Your task to perform on an android device: Is it going to rain tomorrow? Image 0: 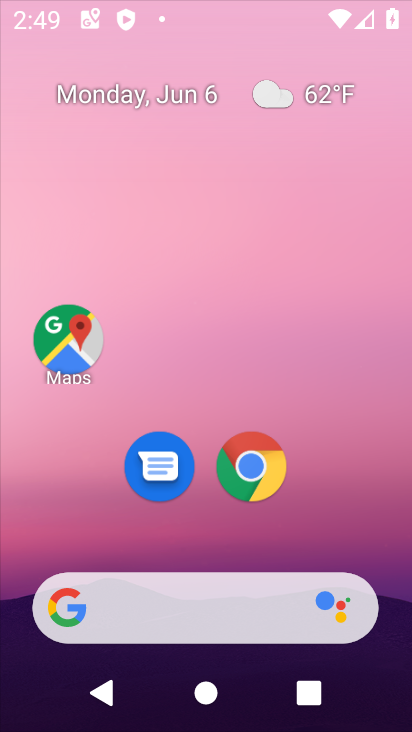
Step 0: drag from (282, 684) to (225, 88)
Your task to perform on an android device: Is it going to rain tomorrow? Image 1: 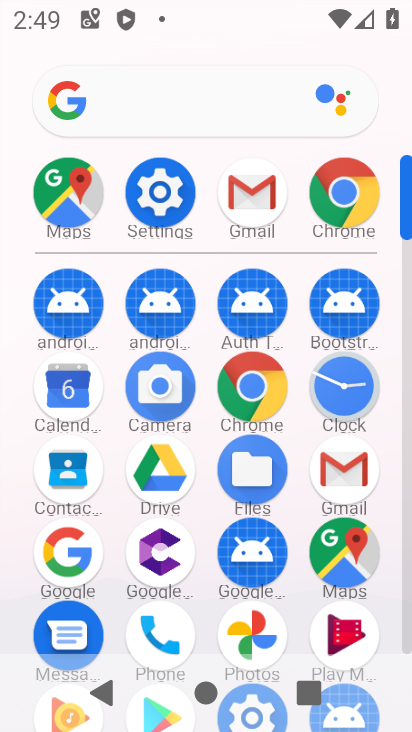
Step 1: press back button
Your task to perform on an android device: Is it going to rain tomorrow? Image 2: 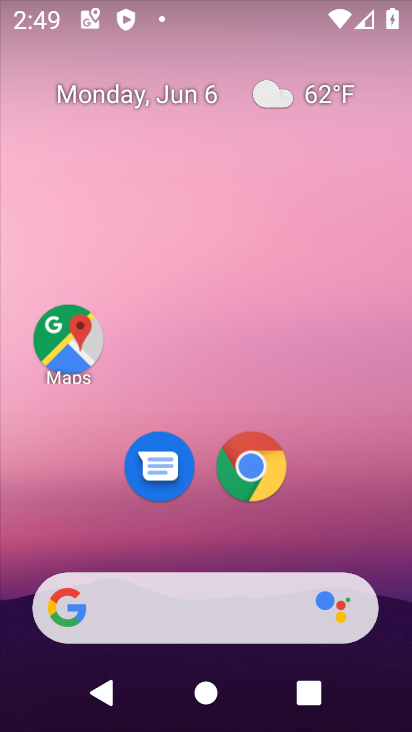
Step 2: drag from (1, 200) to (362, 413)
Your task to perform on an android device: Is it going to rain tomorrow? Image 3: 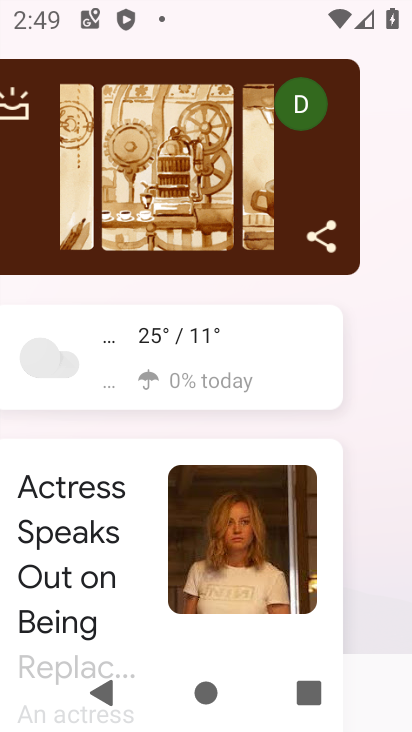
Step 3: drag from (6, 300) to (400, 415)
Your task to perform on an android device: Is it going to rain tomorrow? Image 4: 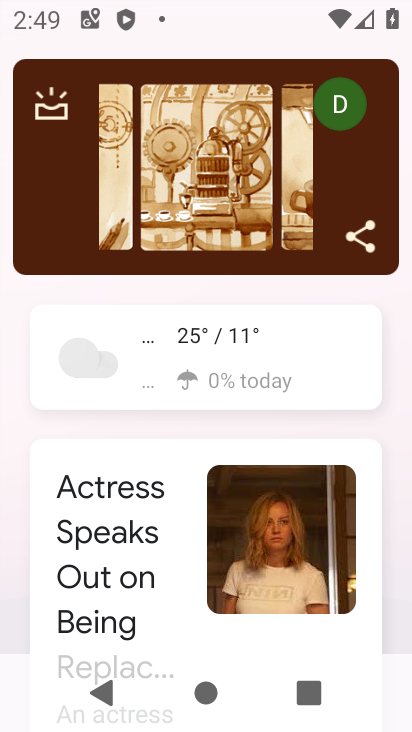
Step 4: click (142, 354)
Your task to perform on an android device: Is it going to rain tomorrow? Image 5: 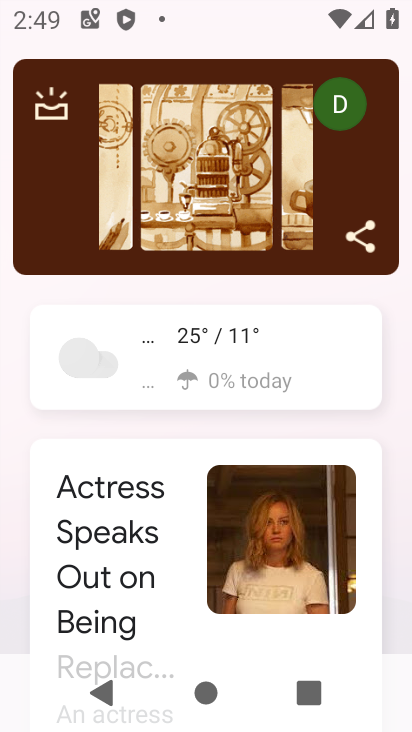
Step 5: click (141, 359)
Your task to perform on an android device: Is it going to rain tomorrow? Image 6: 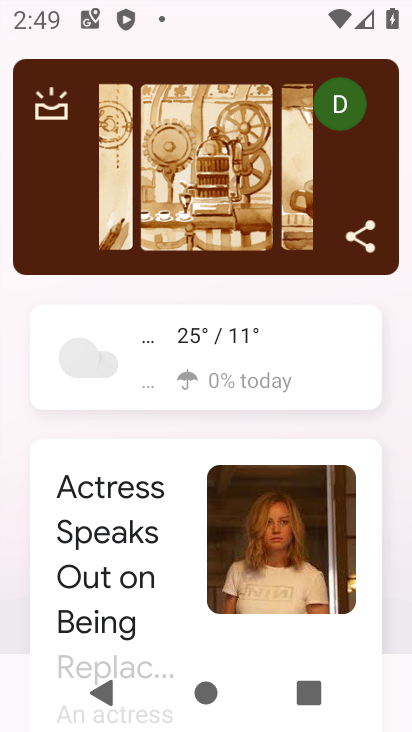
Step 6: click (148, 350)
Your task to perform on an android device: Is it going to rain tomorrow? Image 7: 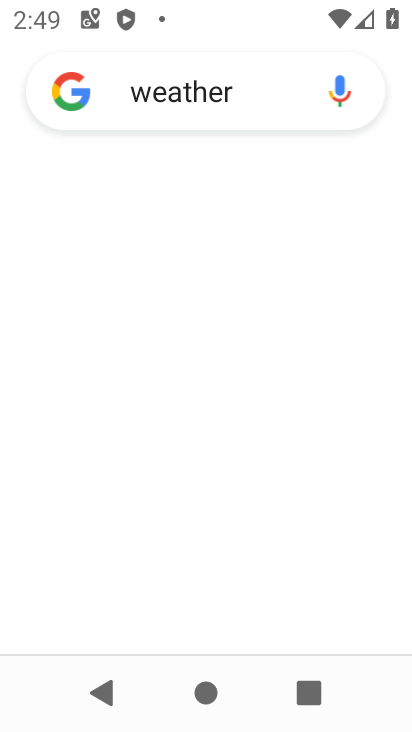
Step 7: click (148, 350)
Your task to perform on an android device: Is it going to rain tomorrow? Image 8: 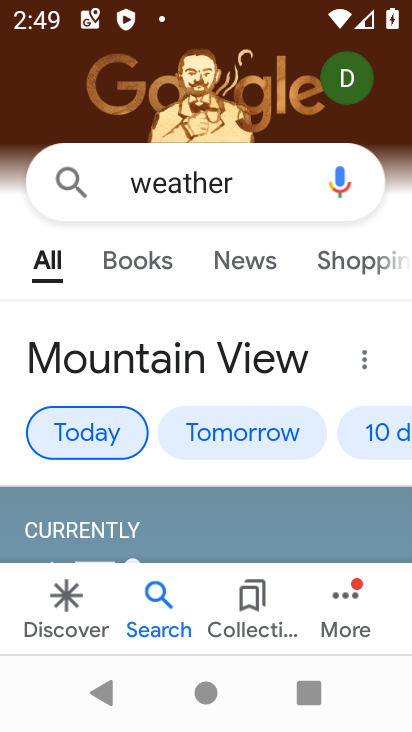
Step 8: click (263, 459)
Your task to perform on an android device: Is it going to rain tomorrow? Image 9: 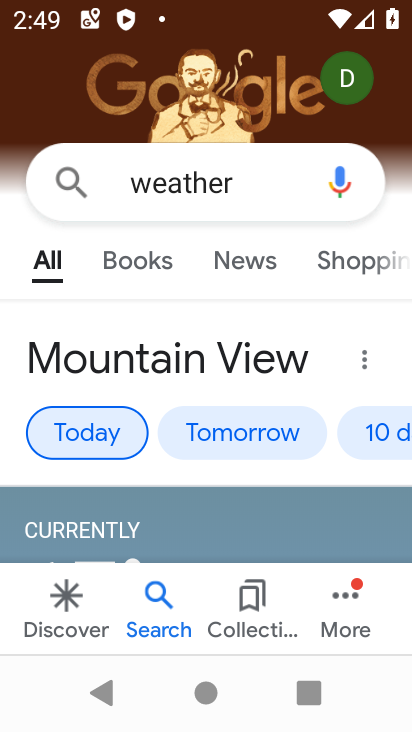
Step 9: click (257, 418)
Your task to perform on an android device: Is it going to rain tomorrow? Image 10: 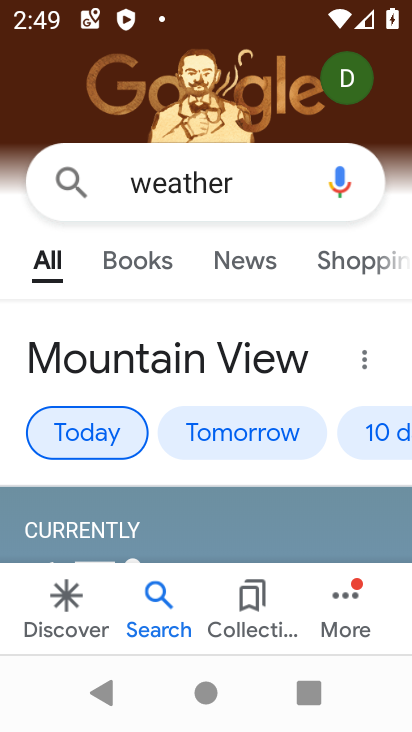
Step 10: click (259, 421)
Your task to perform on an android device: Is it going to rain tomorrow? Image 11: 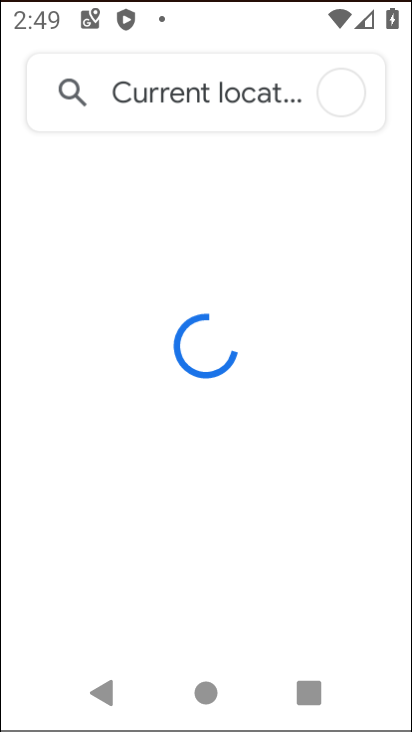
Step 11: click (257, 434)
Your task to perform on an android device: Is it going to rain tomorrow? Image 12: 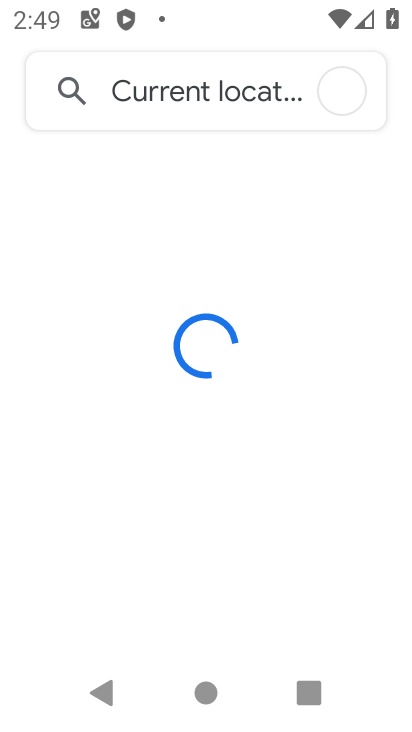
Step 12: click (254, 427)
Your task to perform on an android device: Is it going to rain tomorrow? Image 13: 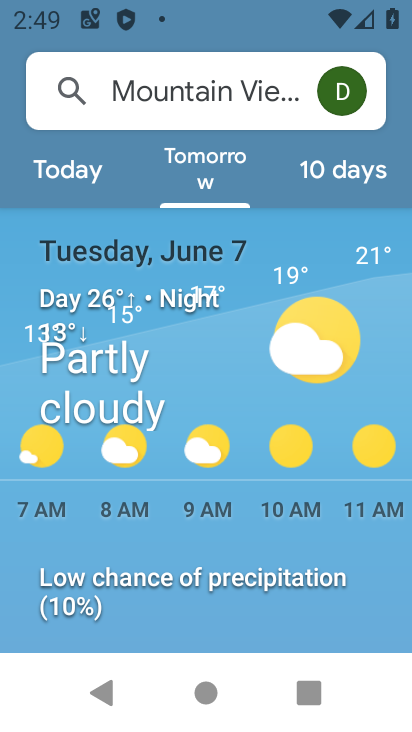
Step 13: task complete